Your task to perform on an android device: Open Chrome and go to settings Image 0: 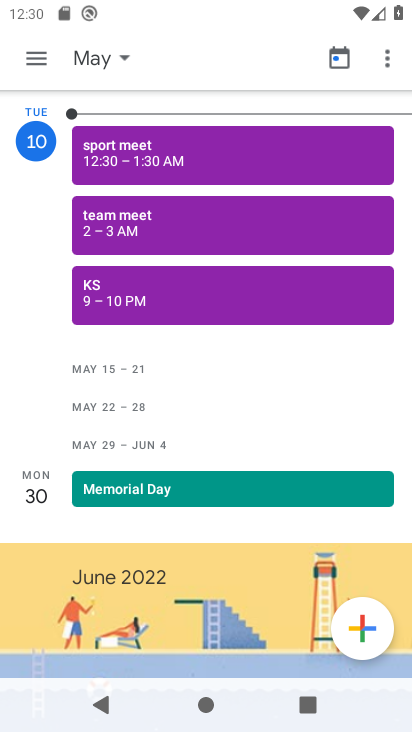
Step 0: press home button
Your task to perform on an android device: Open Chrome and go to settings Image 1: 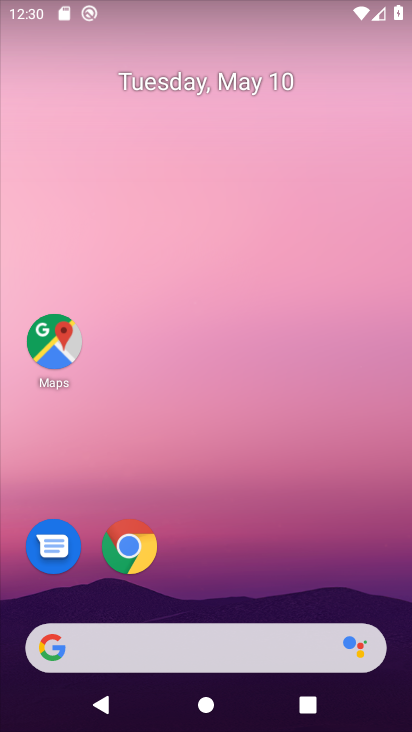
Step 1: click (142, 551)
Your task to perform on an android device: Open Chrome and go to settings Image 2: 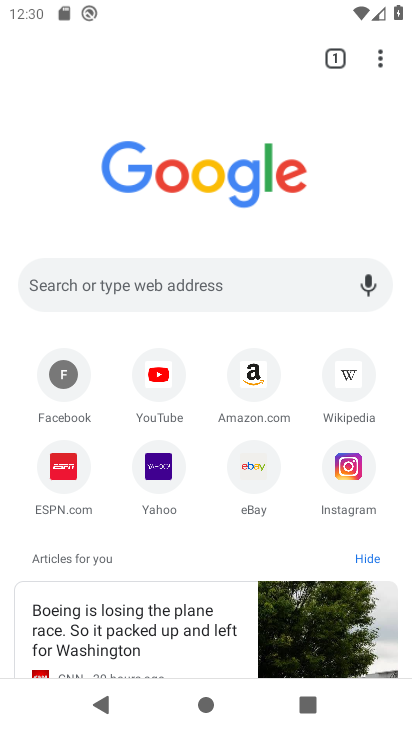
Step 2: task complete